Your task to perform on an android device: What's the weather? Image 0: 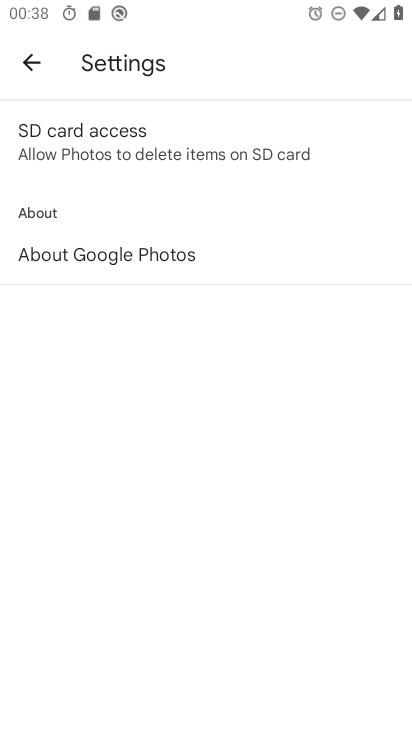
Step 0: press home button
Your task to perform on an android device: What's the weather? Image 1: 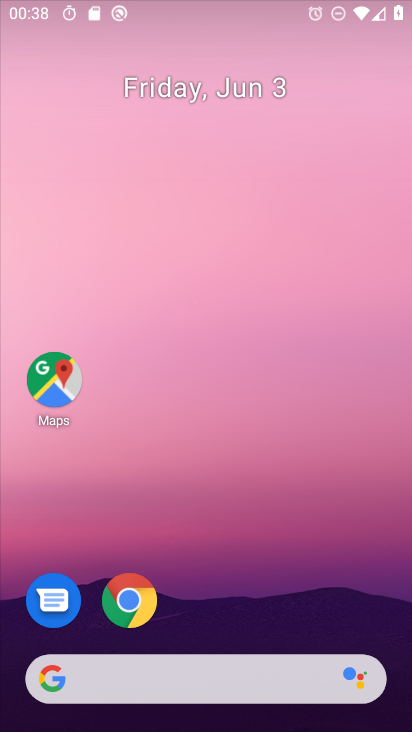
Step 1: drag from (211, 581) to (267, 55)
Your task to perform on an android device: What's the weather? Image 2: 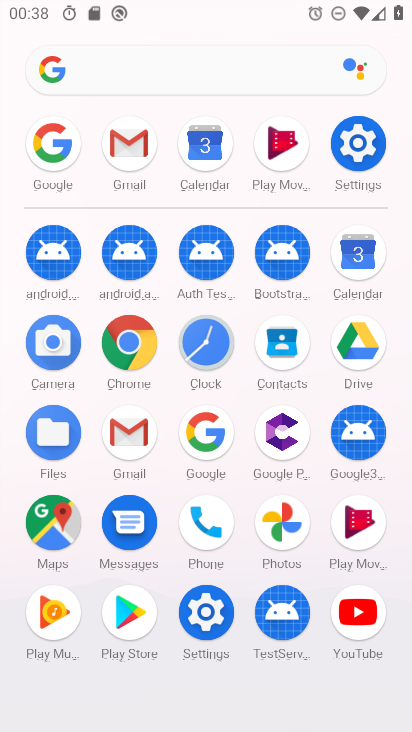
Step 2: click (208, 437)
Your task to perform on an android device: What's the weather? Image 3: 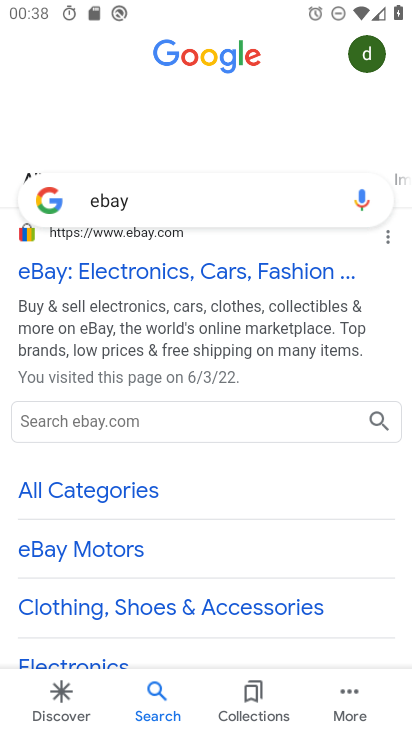
Step 3: click (177, 197)
Your task to perform on an android device: What's the weather? Image 4: 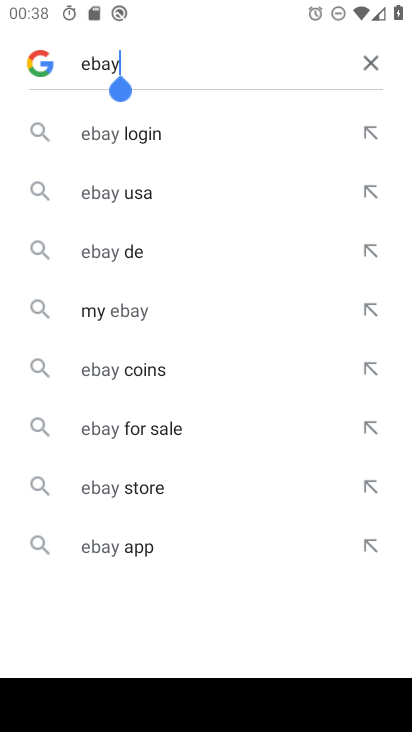
Step 4: click (361, 58)
Your task to perform on an android device: What's the weather? Image 5: 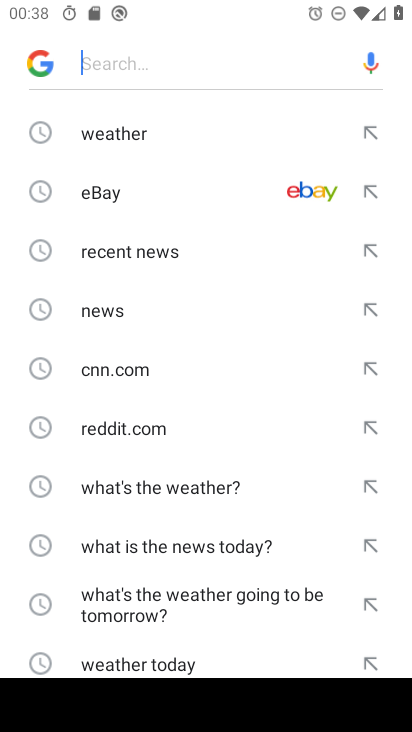
Step 5: click (136, 139)
Your task to perform on an android device: What's the weather? Image 6: 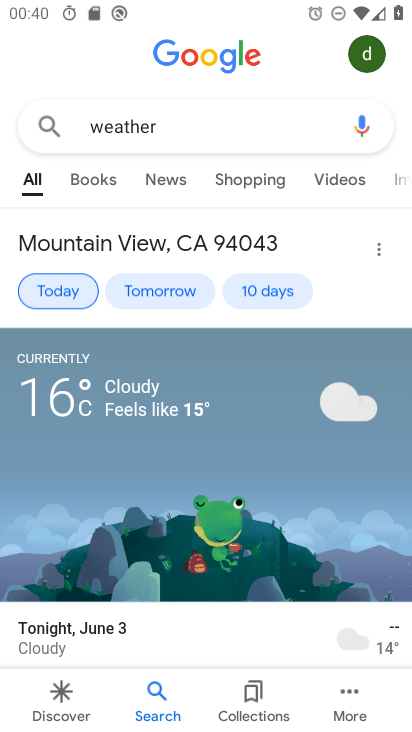
Step 6: task complete